Your task to perform on an android device: Search for Mexican restaurants on Maps Image 0: 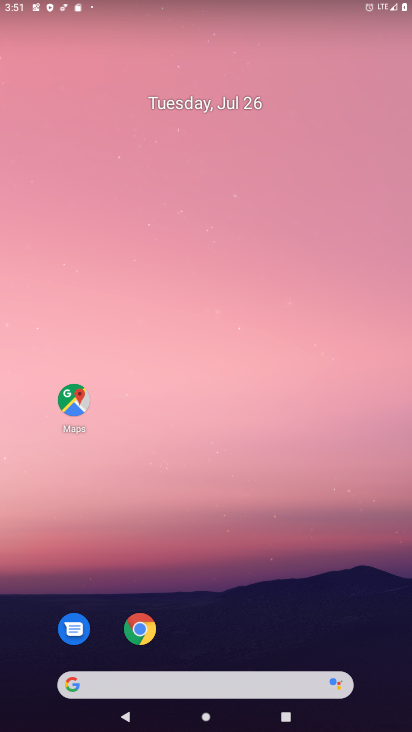
Step 0: click (230, 265)
Your task to perform on an android device: Search for Mexican restaurants on Maps Image 1: 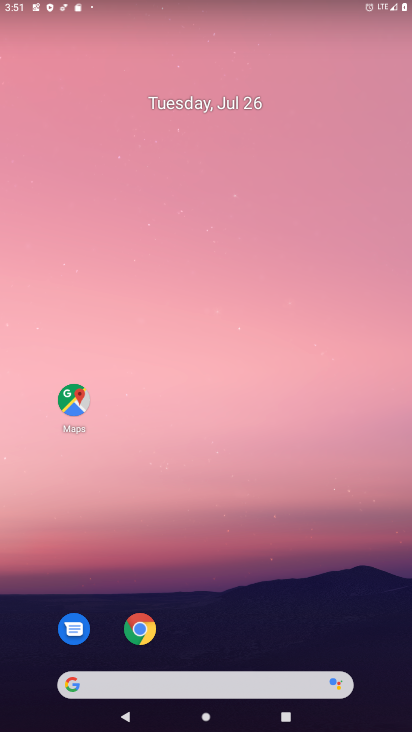
Step 1: drag from (251, 723) to (224, 139)
Your task to perform on an android device: Search for Mexican restaurants on Maps Image 2: 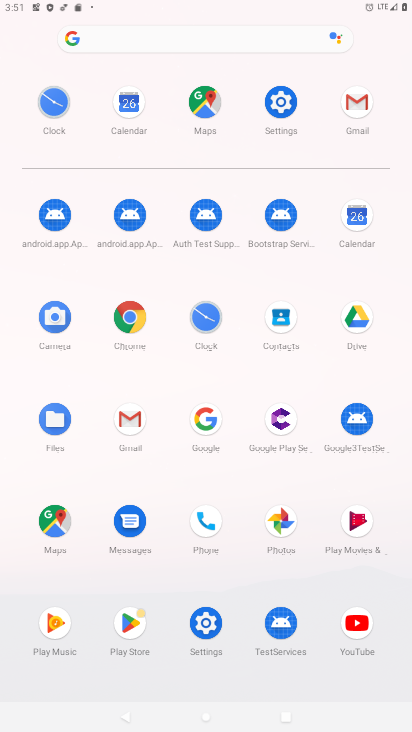
Step 2: click (44, 526)
Your task to perform on an android device: Search for Mexican restaurants on Maps Image 3: 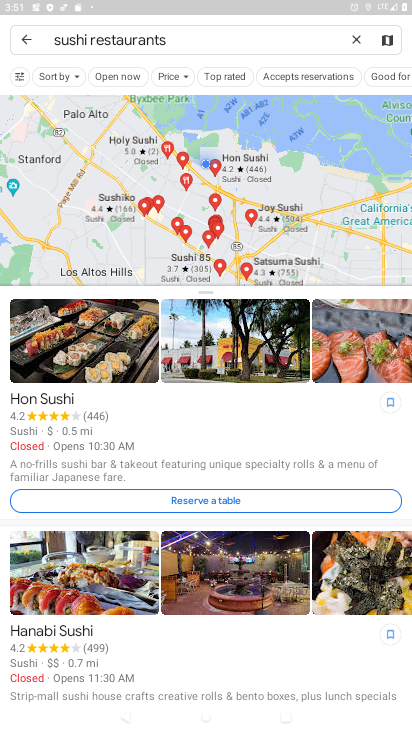
Step 3: click (361, 36)
Your task to perform on an android device: Search for Mexican restaurants on Maps Image 4: 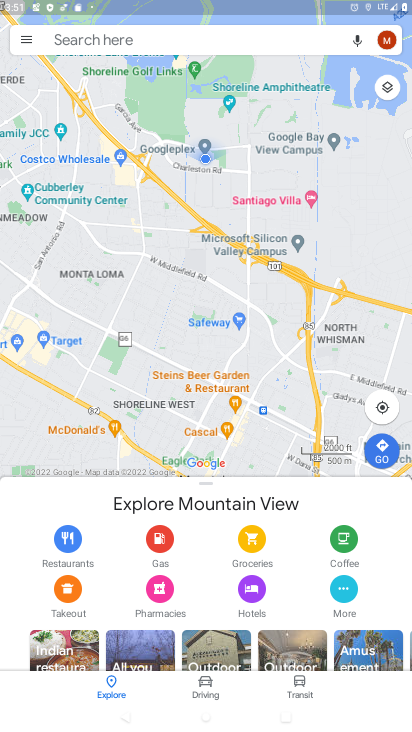
Step 4: click (278, 39)
Your task to perform on an android device: Search for Mexican restaurants on Maps Image 5: 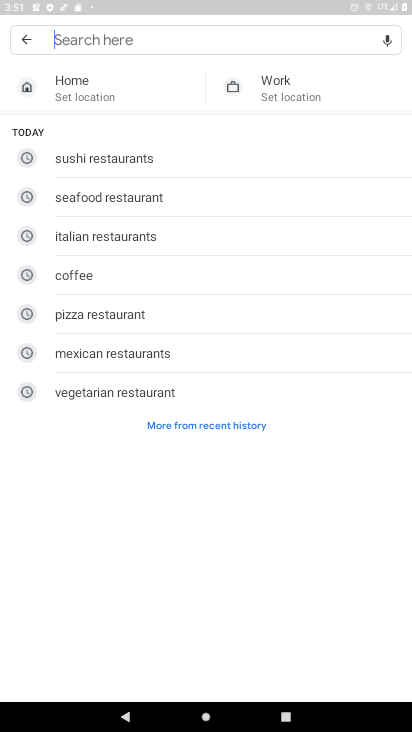
Step 5: type "Mexican restaurants"
Your task to perform on an android device: Search for Mexican restaurants on Maps Image 6: 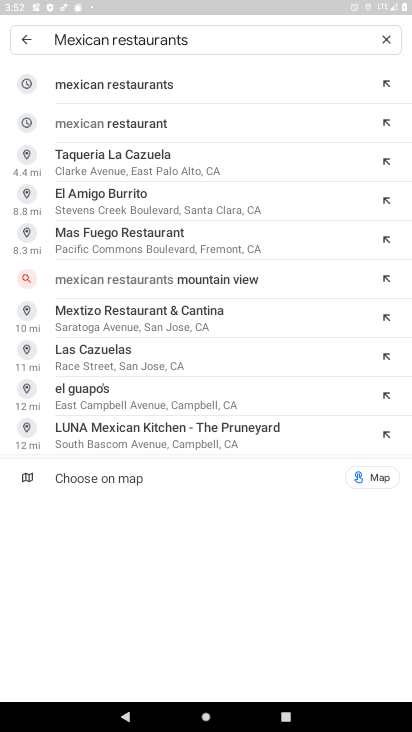
Step 6: click (69, 83)
Your task to perform on an android device: Search for Mexican restaurants on Maps Image 7: 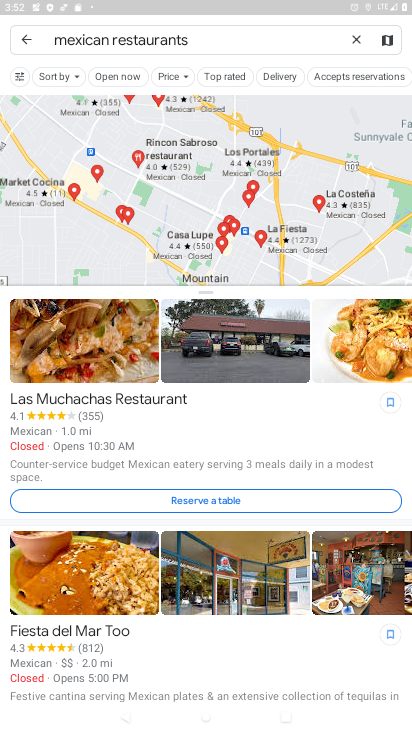
Step 7: task complete